Your task to perform on an android device: change notifications settings Image 0: 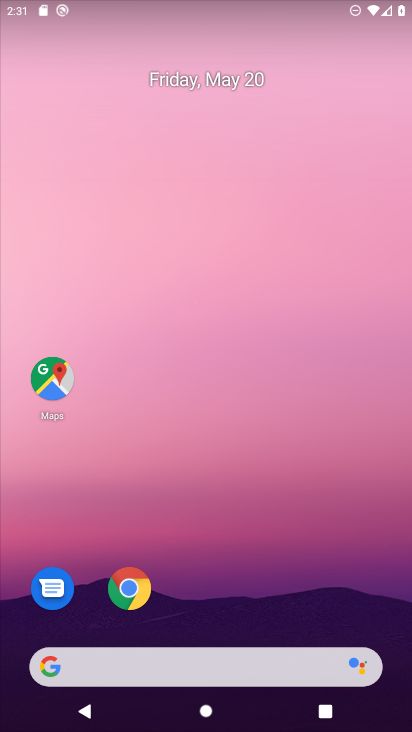
Step 0: drag from (392, 626) to (346, 102)
Your task to perform on an android device: change notifications settings Image 1: 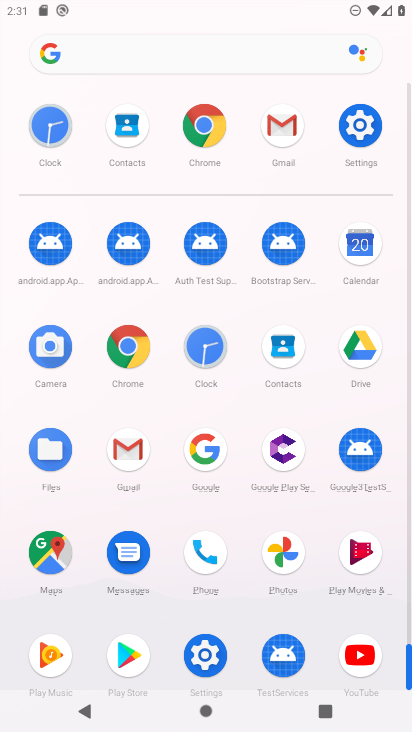
Step 1: click (202, 657)
Your task to perform on an android device: change notifications settings Image 2: 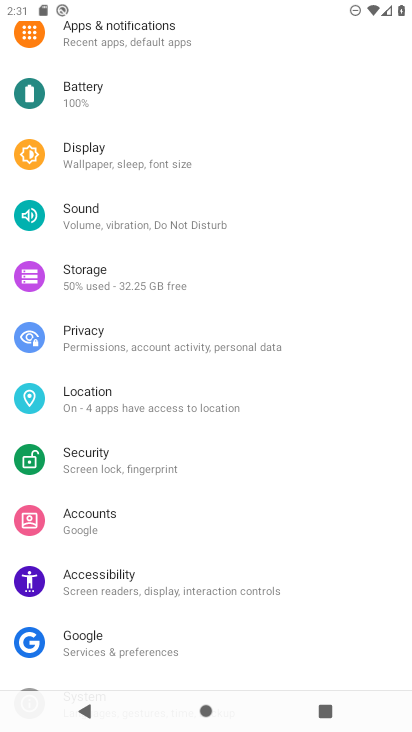
Step 2: drag from (349, 123) to (314, 390)
Your task to perform on an android device: change notifications settings Image 3: 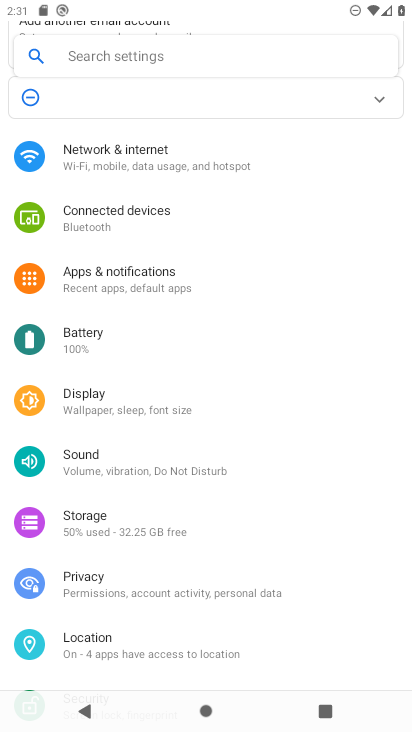
Step 3: click (99, 272)
Your task to perform on an android device: change notifications settings Image 4: 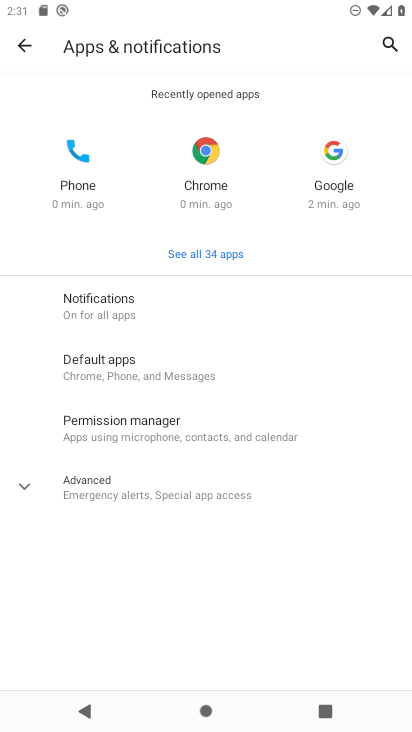
Step 4: click (23, 487)
Your task to perform on an android device: change notifications settings Image 5: 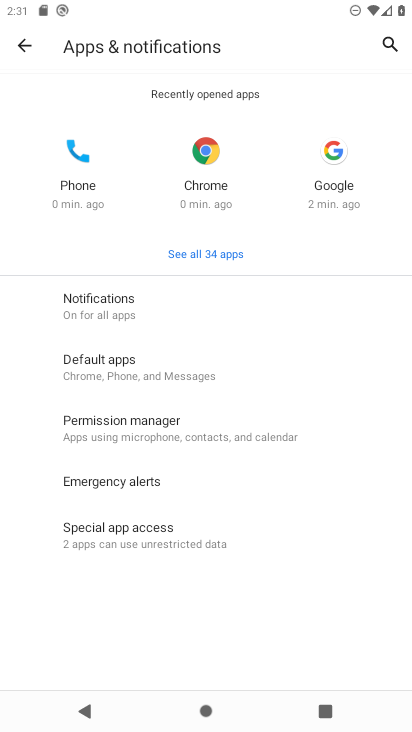
Step 5: click (106, 302)
Your task to perform on an android device: change notifications settings Image 6: 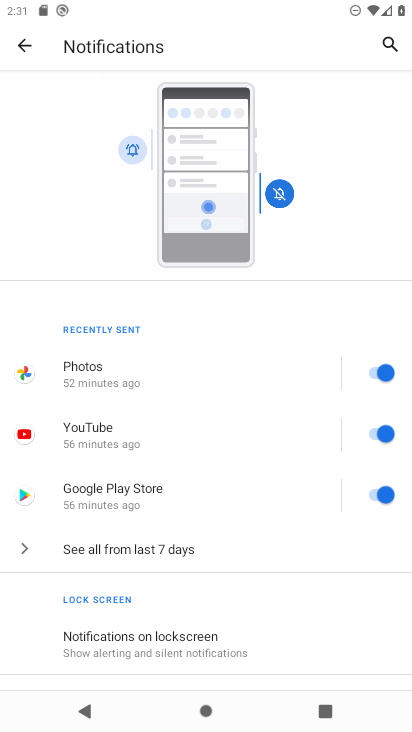
Step 6: drag from (288, 579) to (334, 155)
Your task to perform on an android device: change notifications settings Image 7: 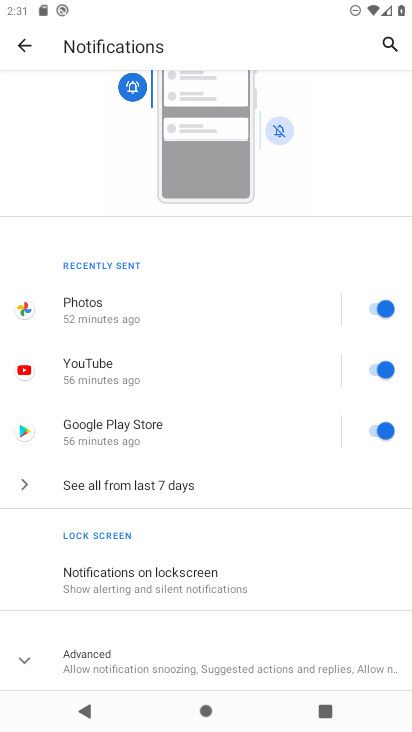
Step 7: click (23, 655)
Your task to perform on an android device: change notifications settings Image 8: 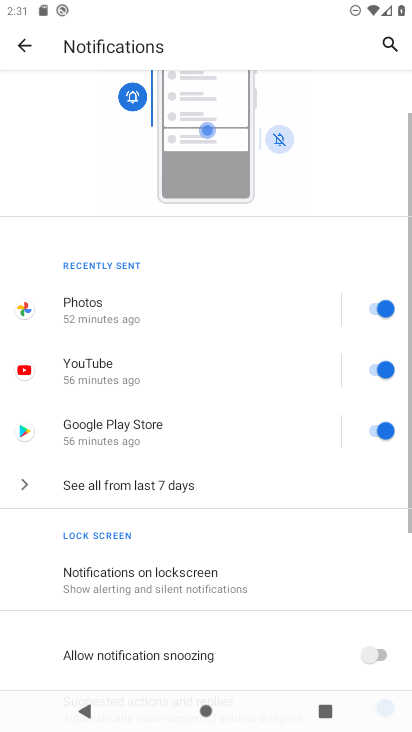
Step 8: task complete